Your task to perform on an android device: What's on my calendar today? Image 0: 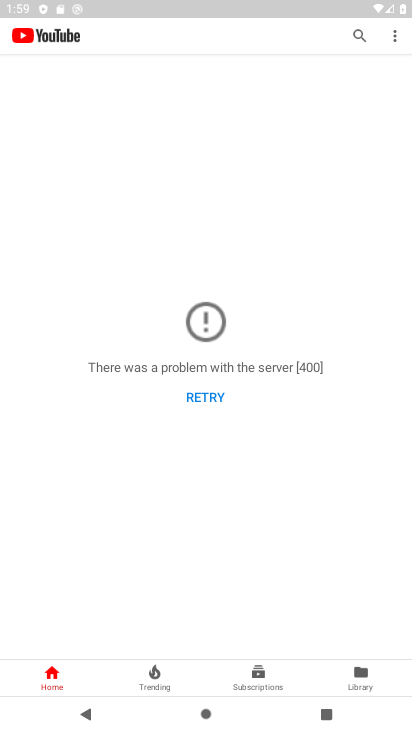
Step 0: press back button
Your task to perform on an android device: What's on my calendar today? Image 1: 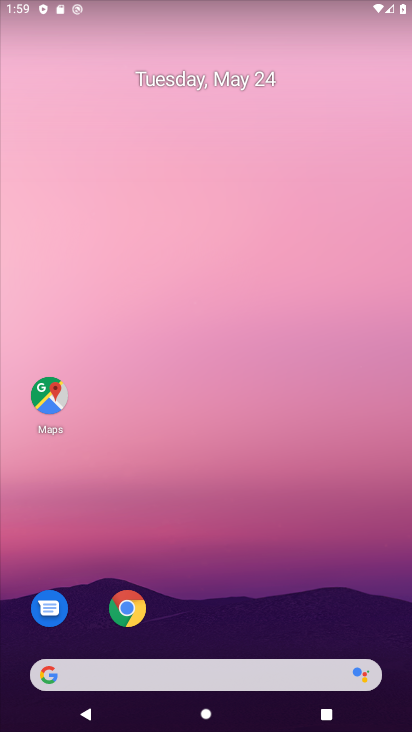
Step 1: drag from (198, 515) to (180, 30)
Your task to perform on an android device: What's on my calendar today? Image 2: 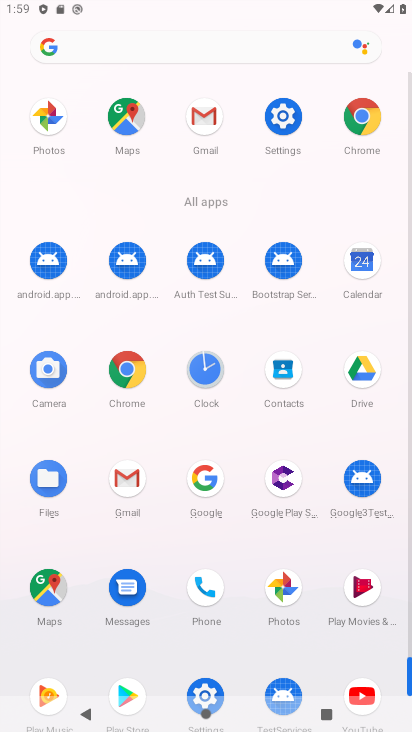
Step 2: click (362, 258)
Your task to perform on an android device: What's on my calendar today? Image 3: 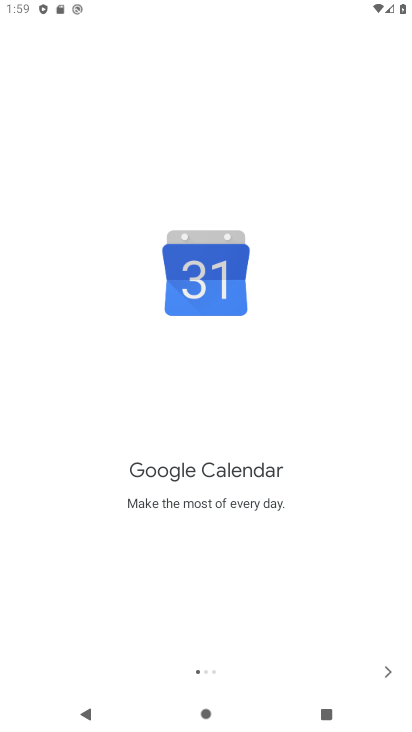
Step 3: click (391, 666)
Your task to perform on an android device: What's on my calendar today? Image 4: 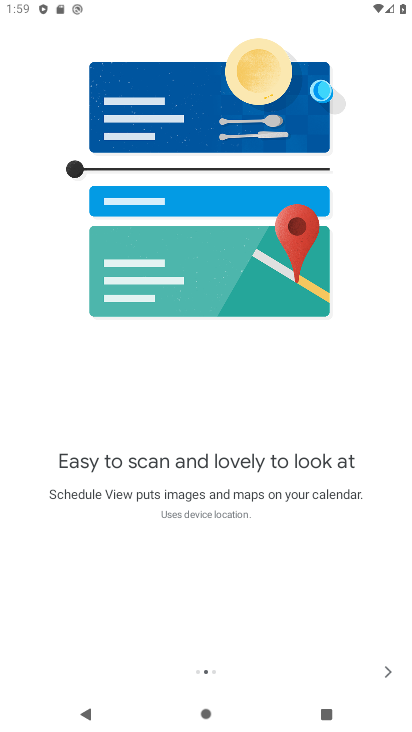
Step 4: click (386, 669)
Your task to perform on an android device: What's on my calendar today? Image 5: 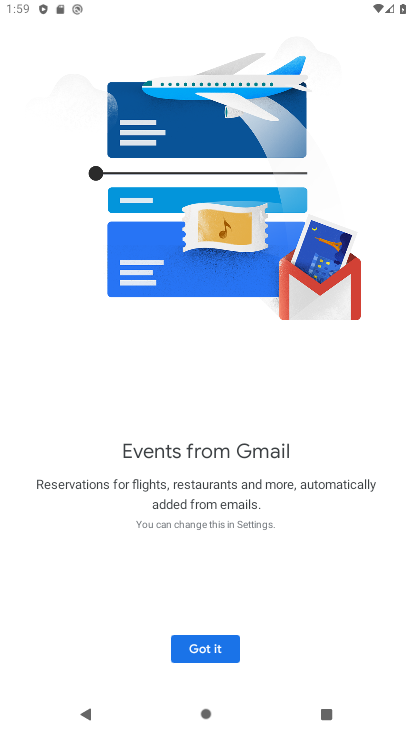
Step 5: click (211, 655)
Your task to perform on an android device: What's on my calendar today? Image 6: 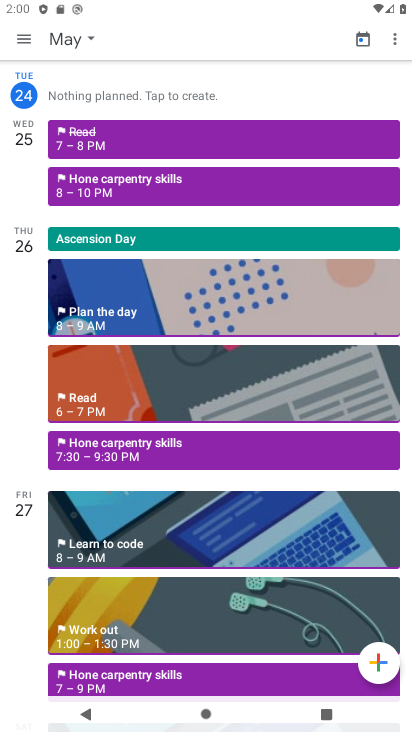
Step 6: click (358, 39)
Your task to perform on an android device: What's on my calendar today? Image 7: 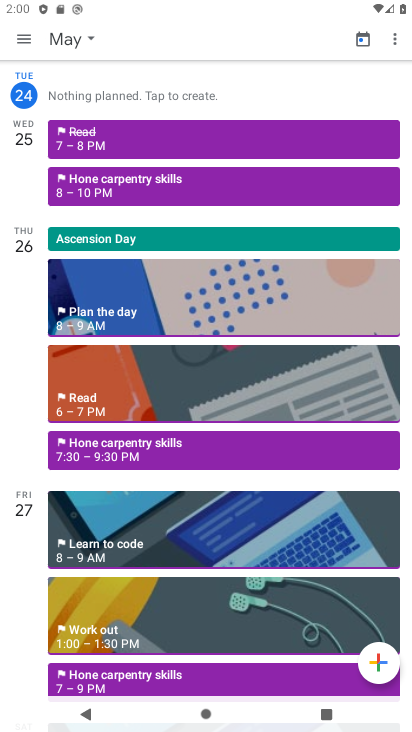
Step 7: task complete